Your task to perform on an android device: Go to battery settings Image 0: 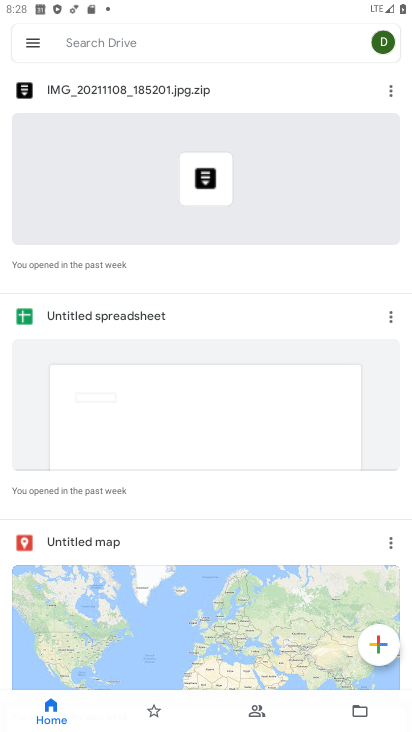
Step 0: drag from (224, 635) to (285, 252)
Your task to perform on an android device: Go to battery settings Image 1: 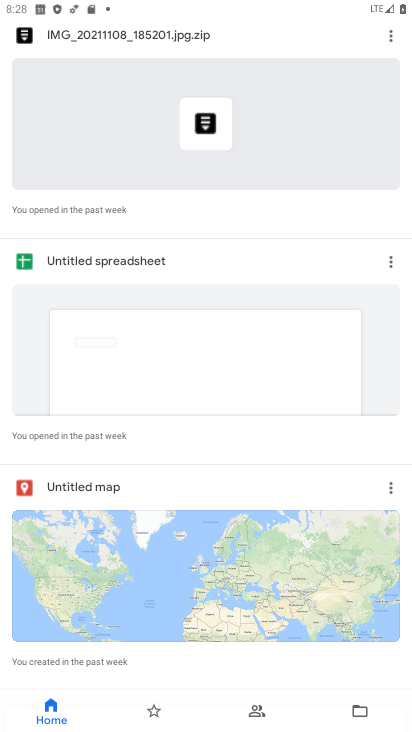
Step 1: drag from (84, 54) to (149, 472)
Your task to perform on an android device: Go to battery settings Image 2: 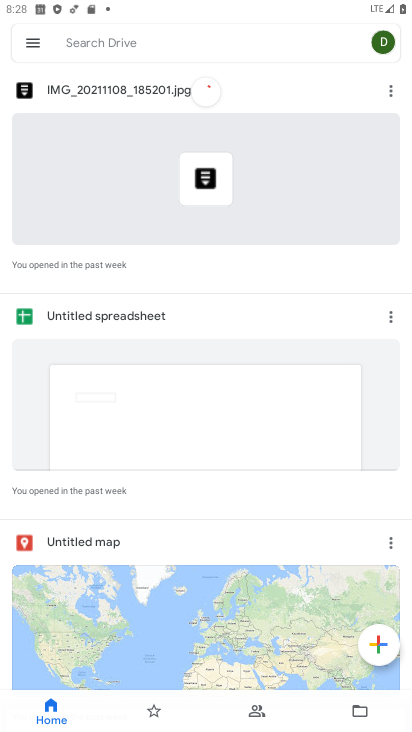
Step 2: click (31, 50)
Your task to perform on an android device: Go to battery settings Image 3: 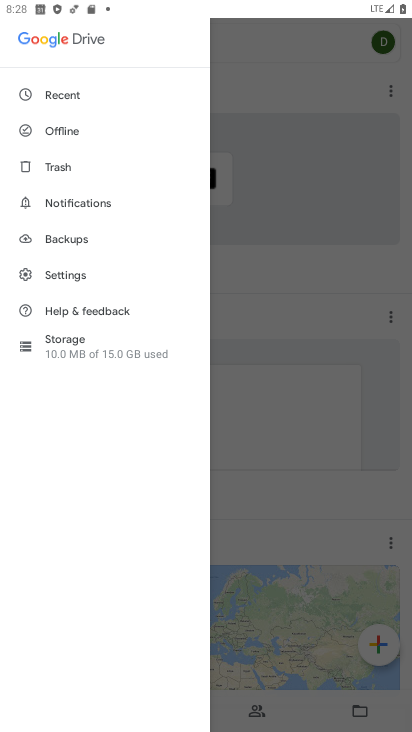
Step 3: click (74, 275)
Your task to perform on an android device: Go to battery settings Image 4: 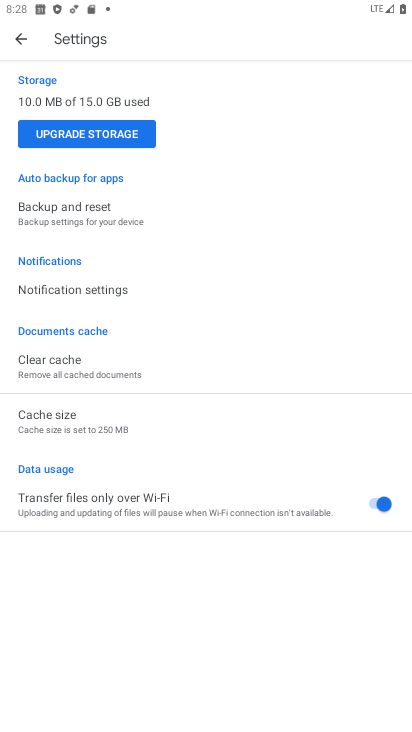
Step 4: press back button
Your task to perform on an android device: Go to battery settings Image 5: 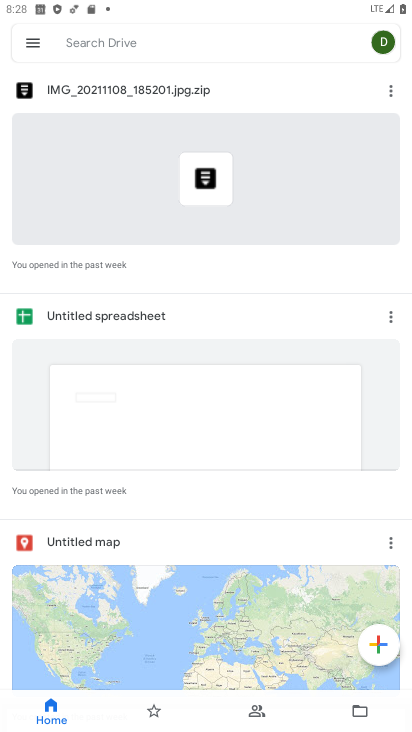
Step 5: press back button
Your task to perform on an android device: Go to battery settings Image 6: 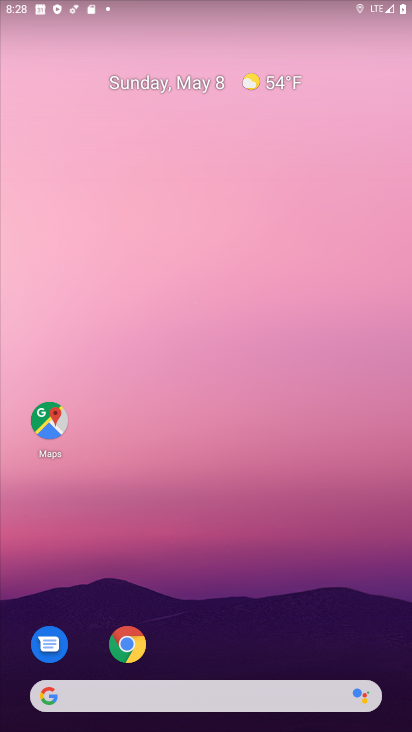
Step 6: drag from (184, 670) to (282, 159)
Your task to perform on an android device: Go to battery settings Image 7: 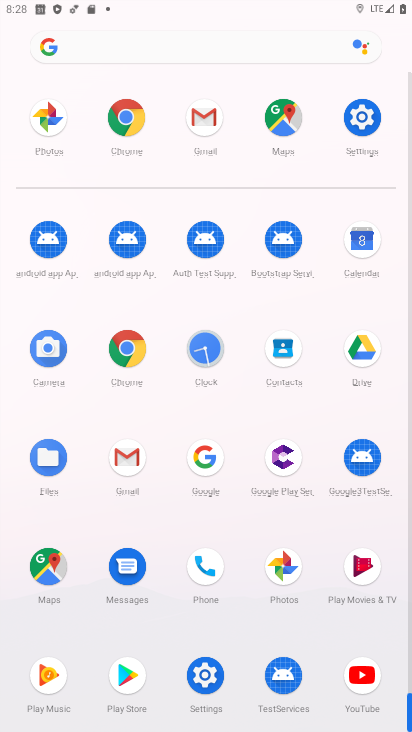
Step 7: click (364, 119)
Your task to perform on an android device: Go to battery settings Image 8: 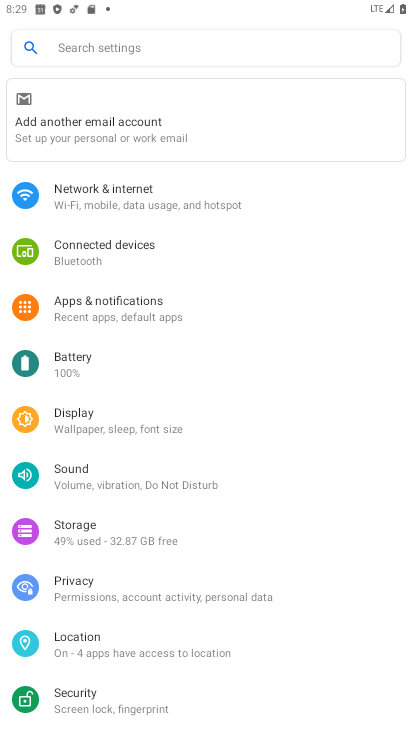
Step 8: click (241, 236)
Your task to perform on an android device: Go to battery settings Image 9: 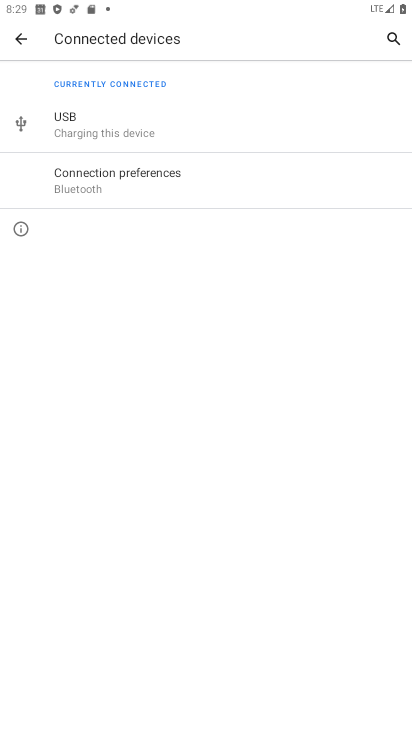
Step 9: click (23, 42)
Your task to perform on an android device: Go to battery settings Image 10: 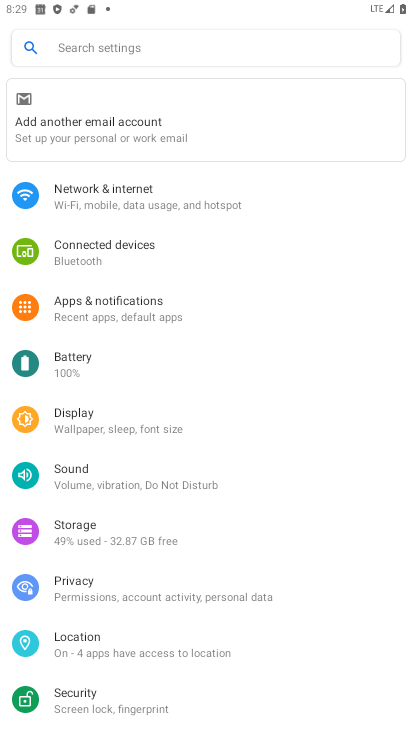
Step 10: click (117, 360)
Your task to perform on an android device: Go to battery settings Image 11: 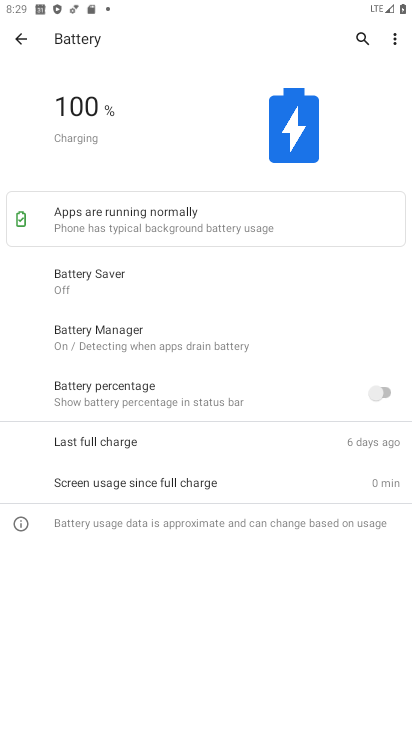
Step 11: click (391, 38)
Your task to perform on an android device: Go to battery settings Image 12: 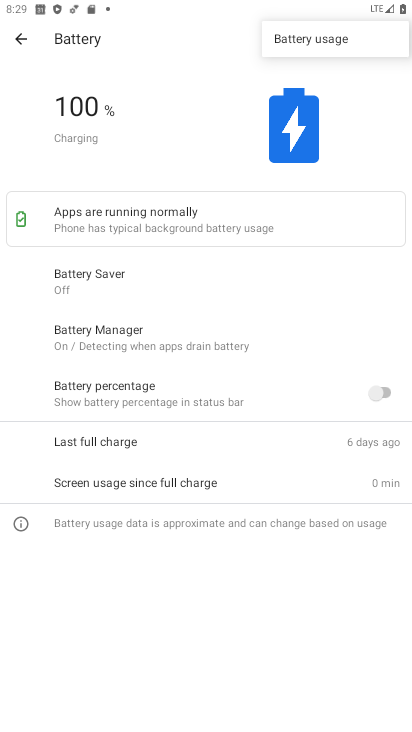
Step 12: task complete